Your task to perform on an android device: Go to Google Image 0: 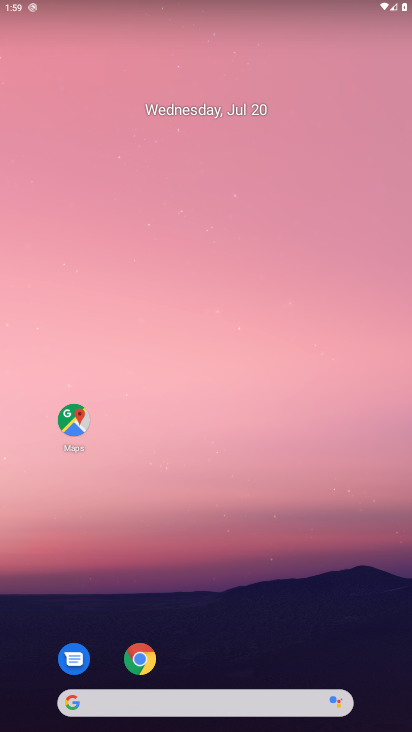
Step 0: click (114, 706)
Your task to perform on an android device: Go to Google Image 1: 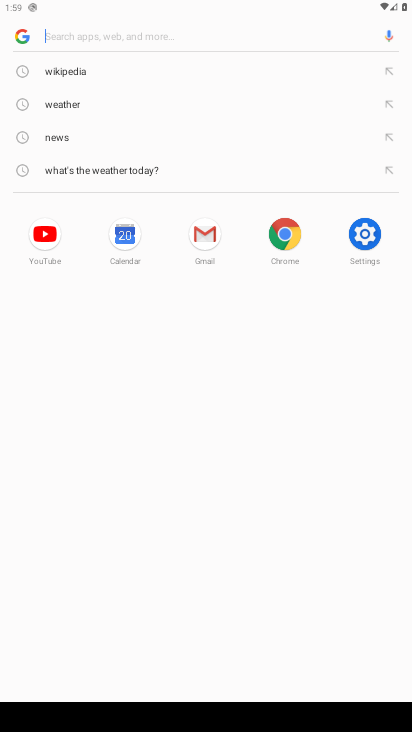
Step 1: task complete